Your task to perform on an android device: see creations saved in the google photos Image 0: 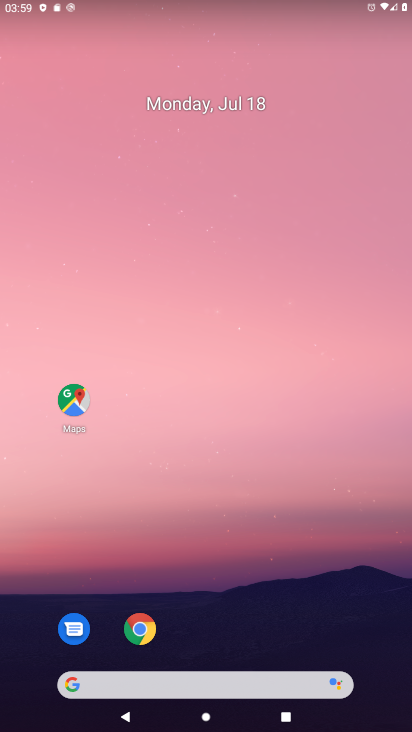
Step 0: click (252, 9)
Your task to perform on an android device: see creations saved in the google photos Image 1: 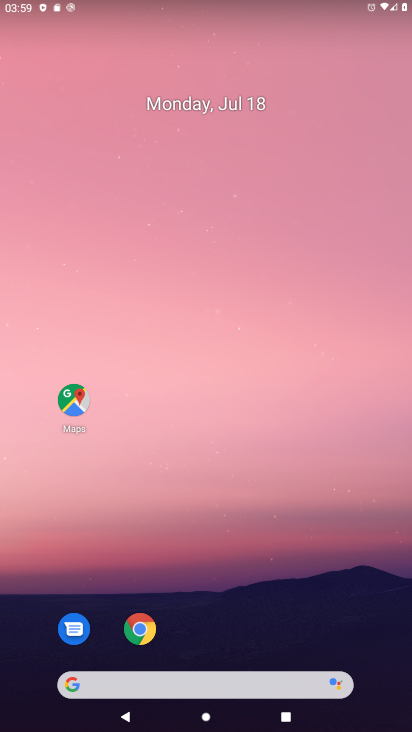
Step 1: drag from (387, 716) to (277, 95)
Your task to perform on an android device: see creations saved in the google photos Image 2: 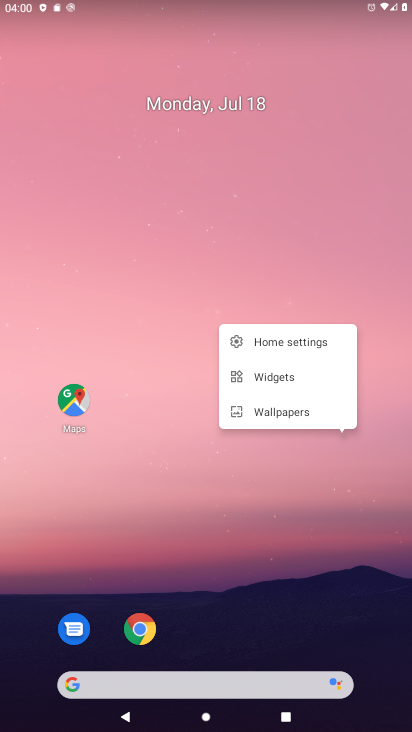
Step 2: click (382, 693)
Your task to perform on an android device: see creations saved in the google photos Image 3: 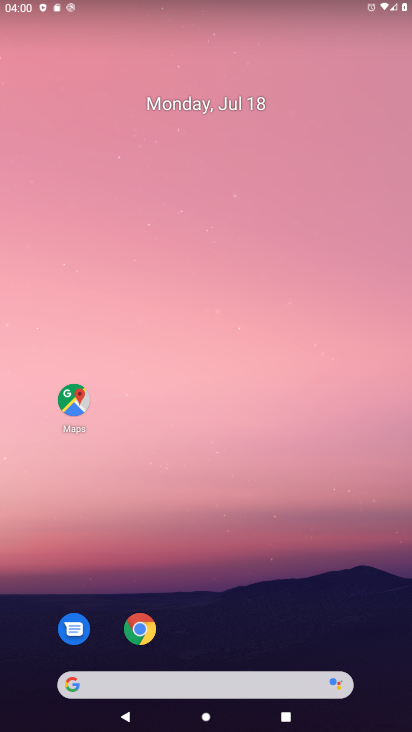
Step 3: drag from (389, 722) to (273, 13)
Your task to perform on an android device: see creations saved in the google photos Image 4: 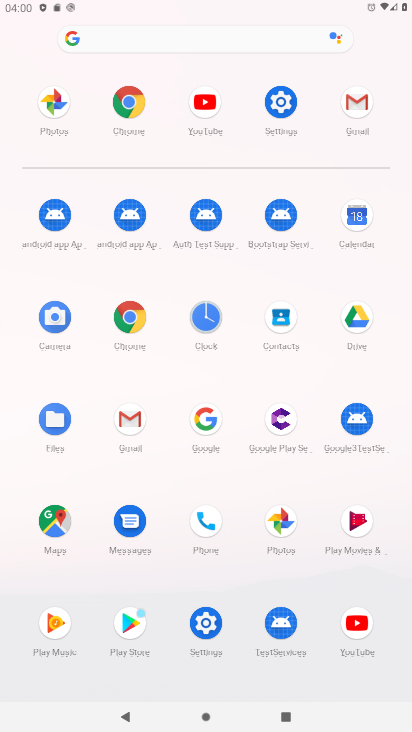
Step 4: click (283, 519)
Your task to perform on an android device: see creations saved in the google photos Image 5: 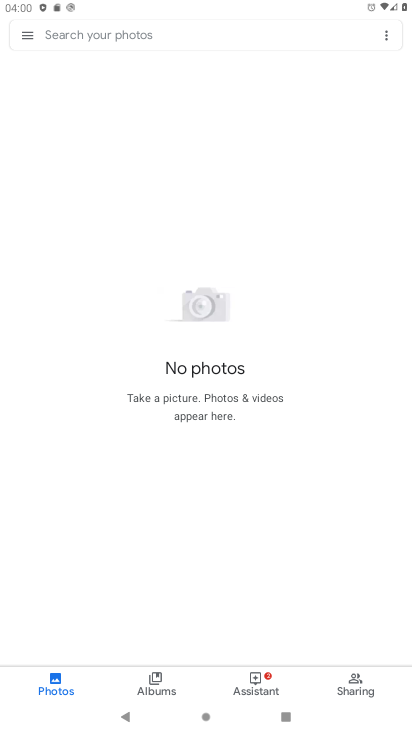
Step 5: task complete